Your task to perform on an android device: Go to display settings Image 0: 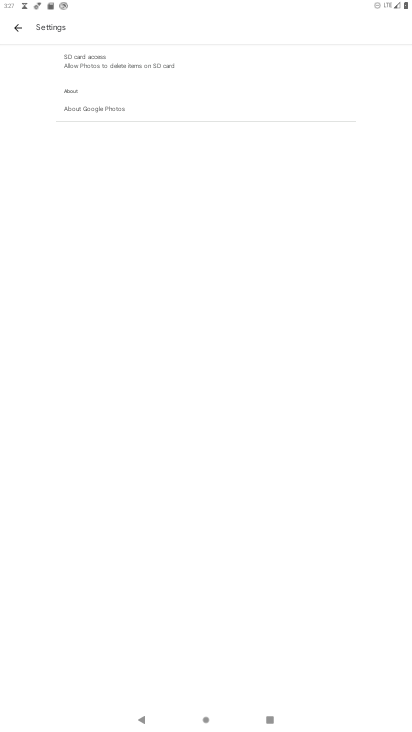
Step 0: press home button
Your task to perform on an android device: Go to display settings Image 1: 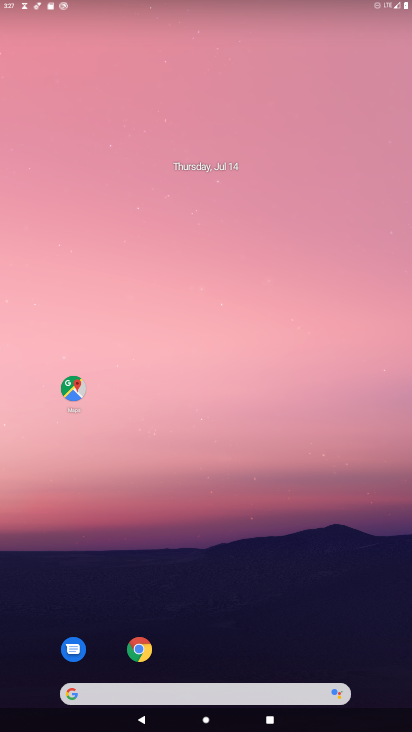
Step 1: drag from (248, 703) to (301, 173)
Your task to perform on an android device: Go to display settings Image 2: 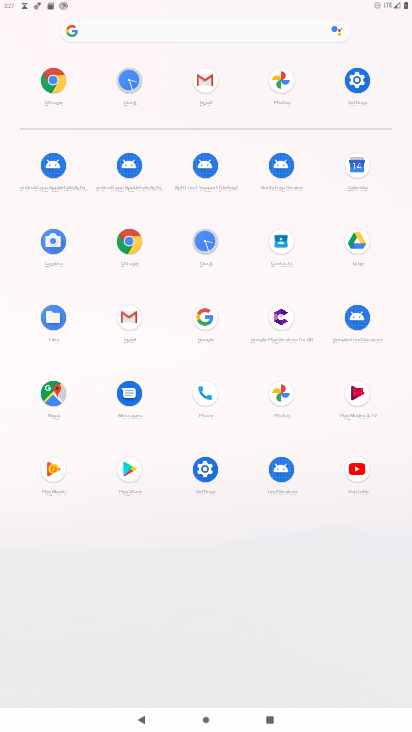
Step 2: click (354, 84)
Your task to perform on an android device: Go to display settings Image 3: 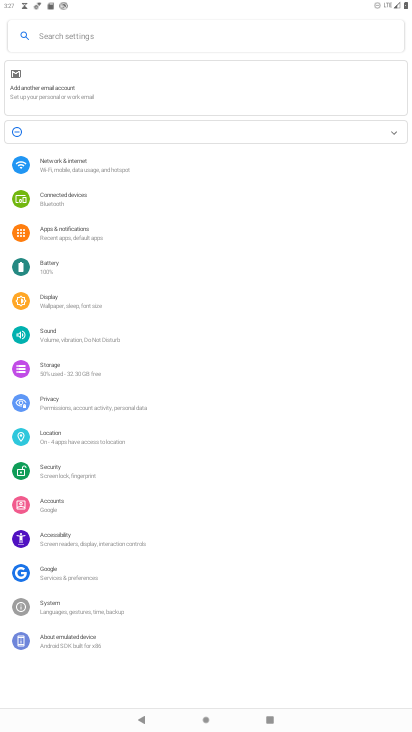
Step 3: click (68, 305)
Your task to perform on an android device: Go to display settings Image 4: 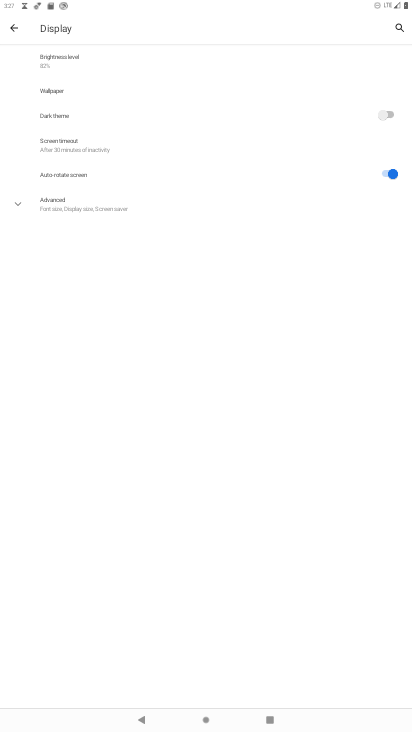
Step 4: task complete